Your task to perform on an android device: find snoozed emails in the gmail app Image 0: 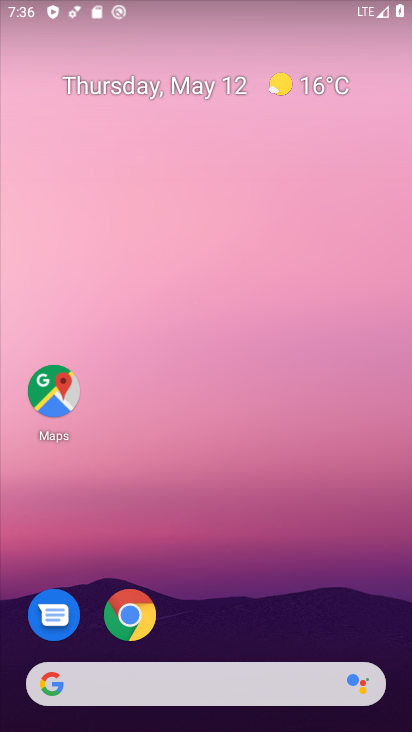
Step 0: drag from (267, 552) to (207, 32)
Your task to perform on an android device: find snoozed emails in the gmail app Image 1: 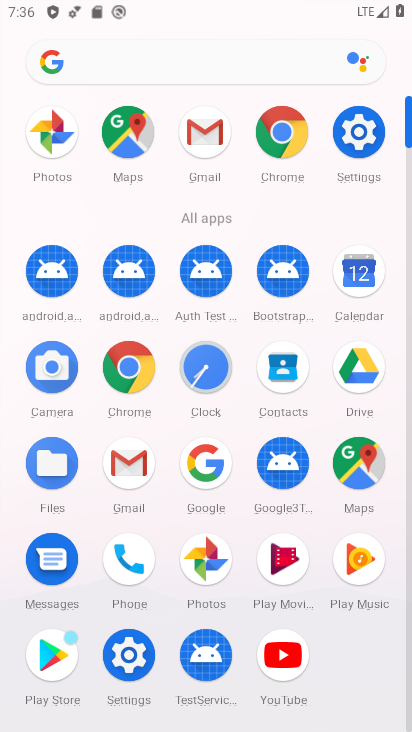
Step 1: click (208, 135)
Your task to perform on an android device: find snoozed emails in the gmail app Image 2: 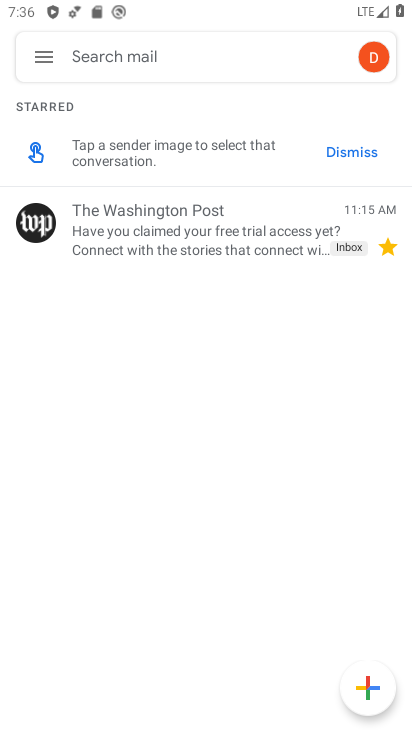
Step 2: click (39, 52)
Your task to perform on an android device: find snoozed emails in the gmail app Image 3: 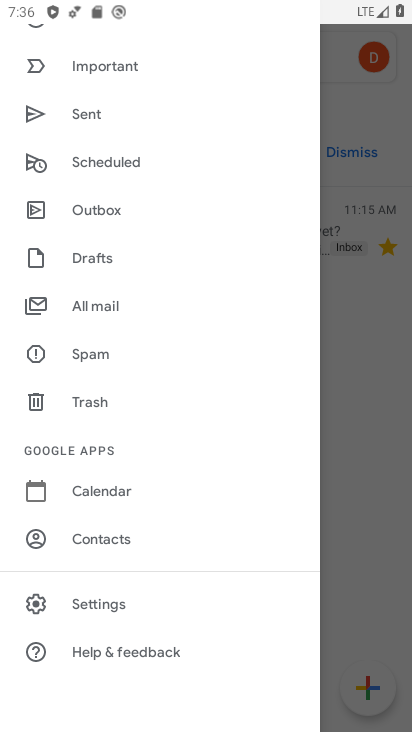
Step 3: drag from (175, 208) to (184, 581)
Your task to perform on an android device: find snoozed emails in the gmail app Image 4: 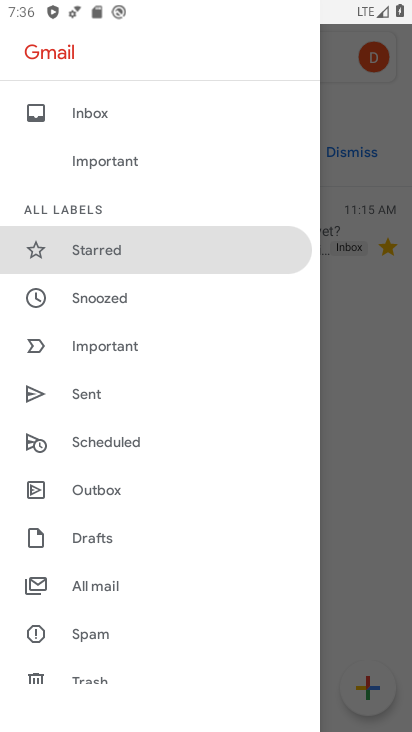
Step 4: click (163, 296)
Your task to perform on an android device: find snoozed emails in the gmail app Image 5: 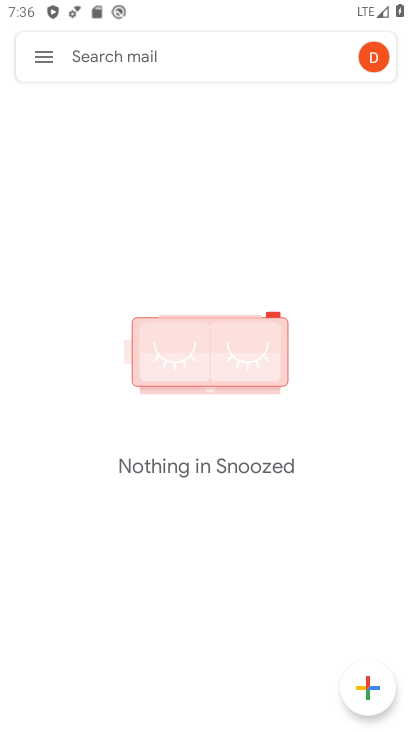
Step 5: task complete